Your task to perform on an android device: Open the calendar and show me this week's events Image 0: 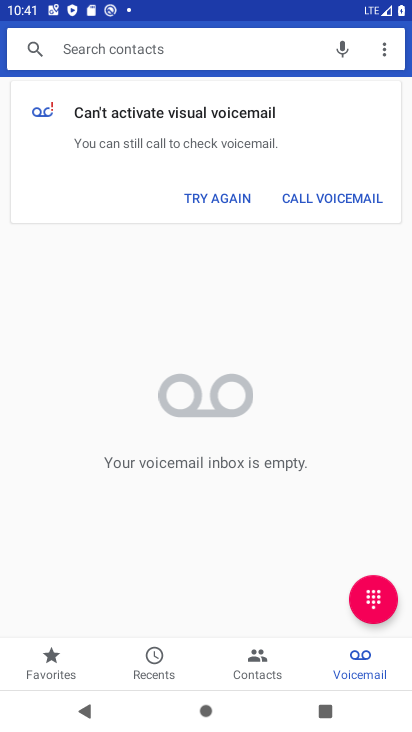
Step 0: press home button
Your task to perform on an android device: Open the calendar and show me this week's events Image 1: 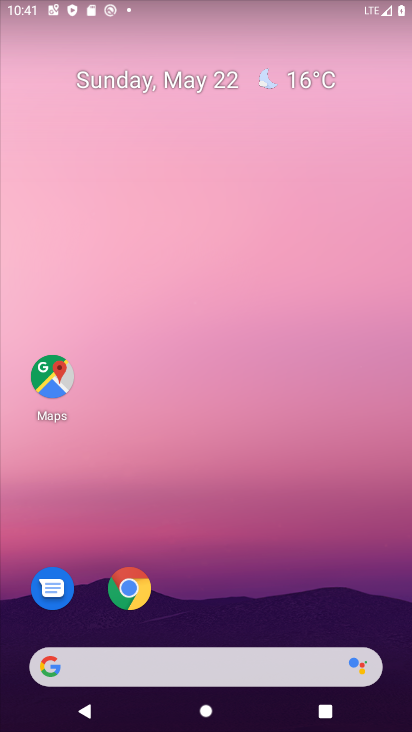
Step 1: drag from (194, 608) to (193, 211)
Your task to perform on an android device: Open the calendar and show me this week's events Image 2: 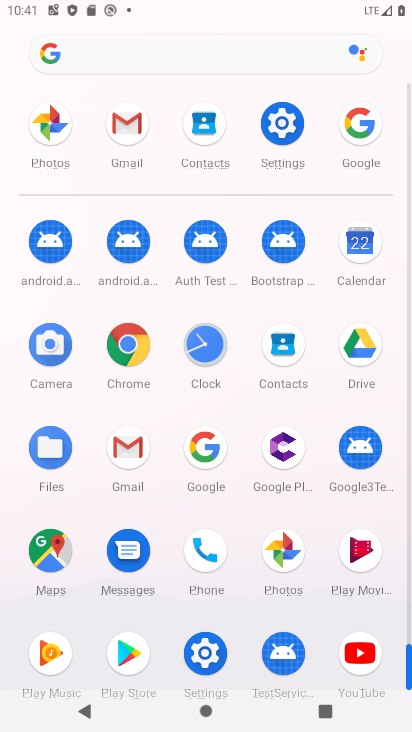
Step 2: click (351, 259)
Your task to perform on an android device: Open the calendar and show me this week's events Image 3: 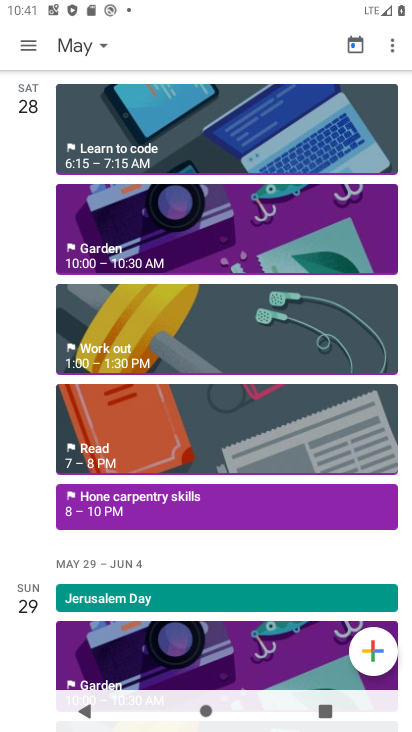
Step 3: click (89, 46)
Your task to perform on an android device: Open the calendar and show me this week's events Image 4: 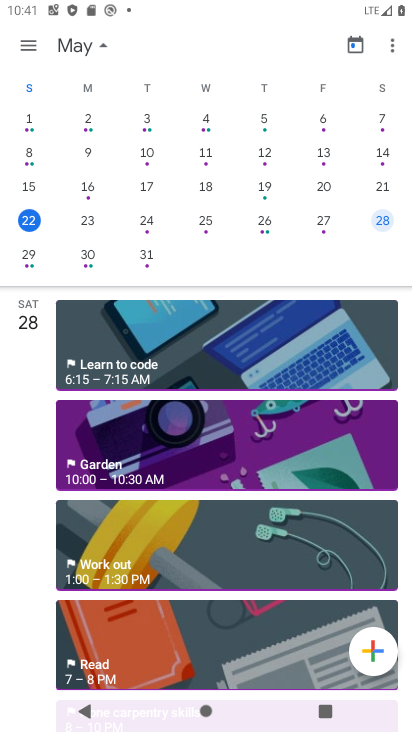
Step 4: click (92, 54)
Your task to perform on an android device: Open the calendar and show me this week's events Image 5: 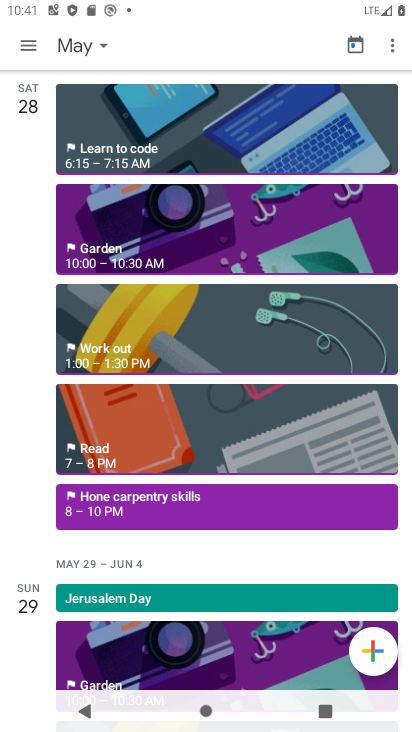
Step 5: task complete